Your task to perform on an android device: What's the news in Peru? Image 0: 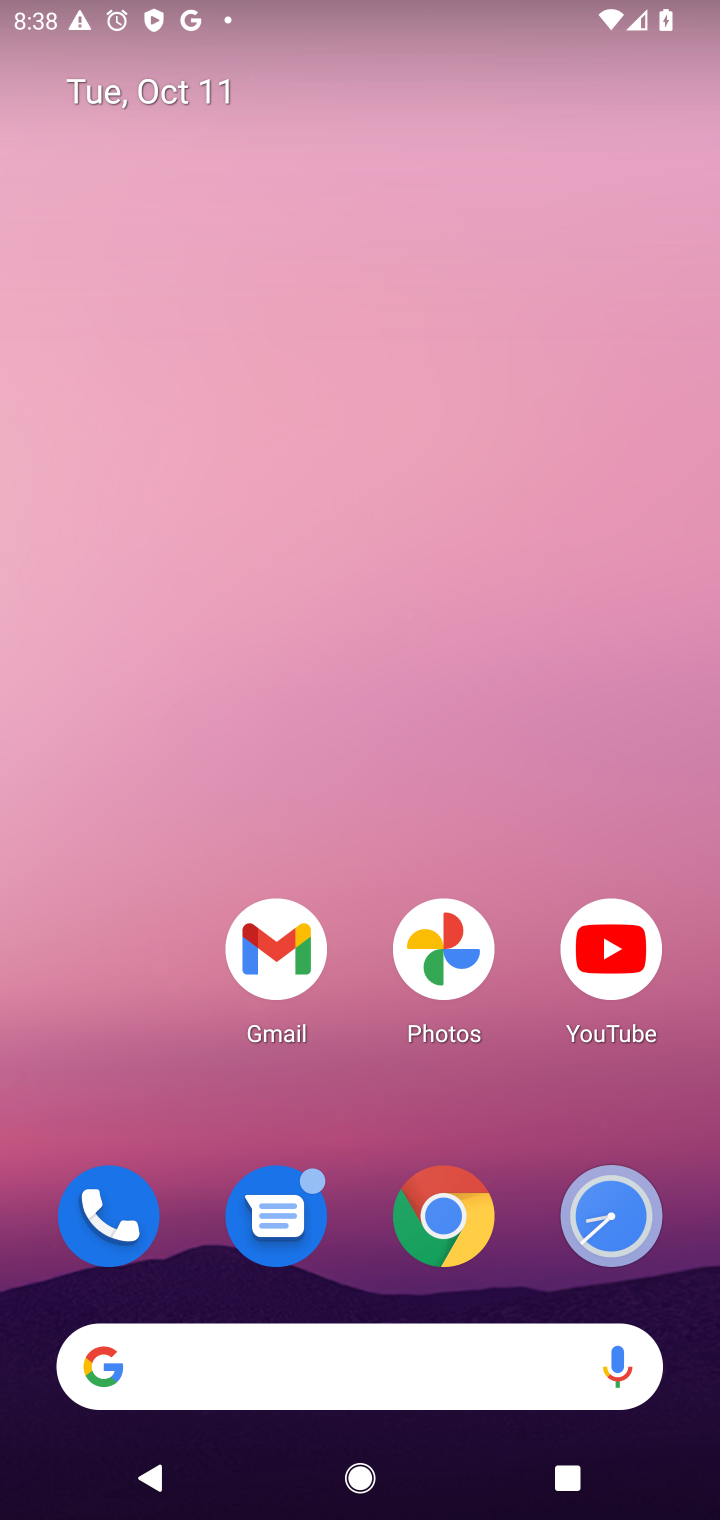
Step 0: click (399, 1256)
Your task to perform on an android device: What's the news in Peru? Image 1: 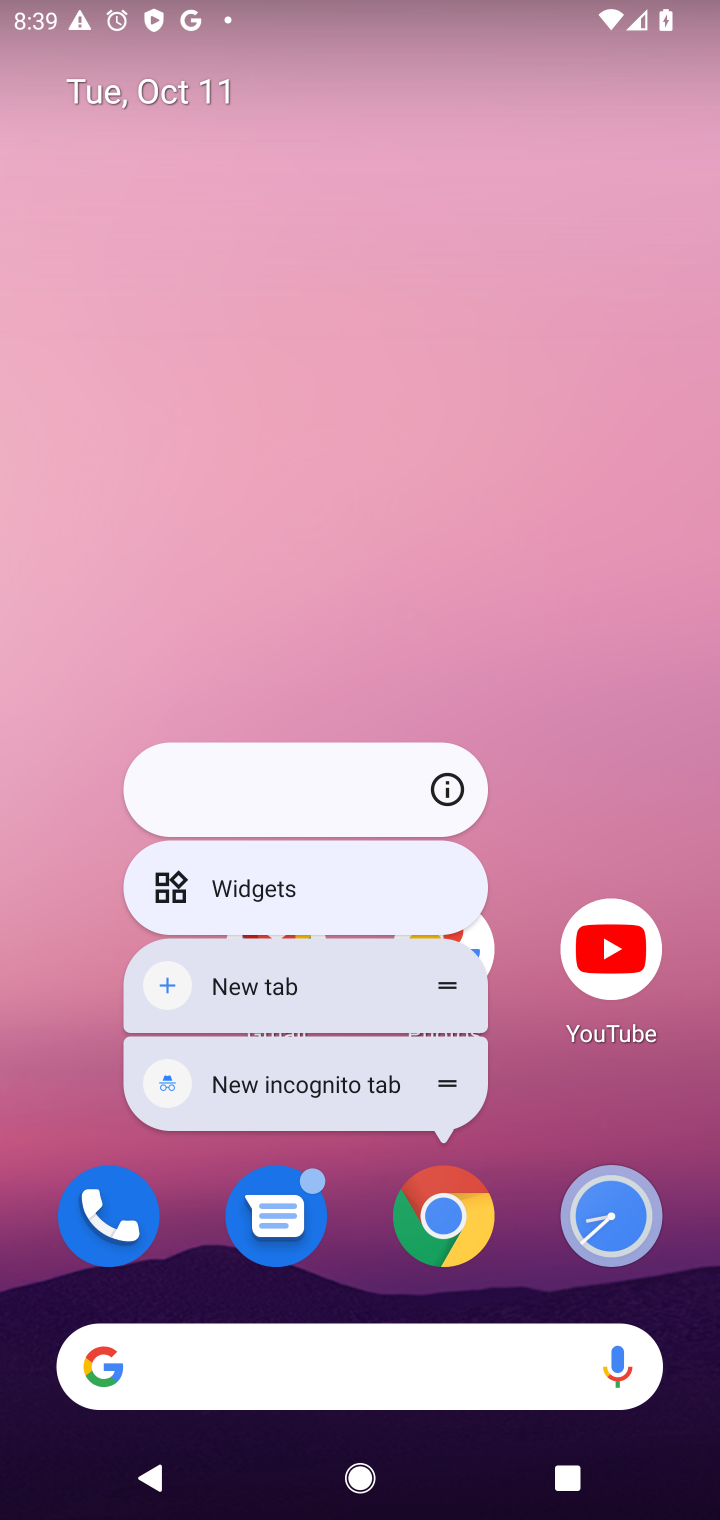
Step 1: click (394, 1184)
Your task to perform on an android device: What's the news in Peru? Image 2: 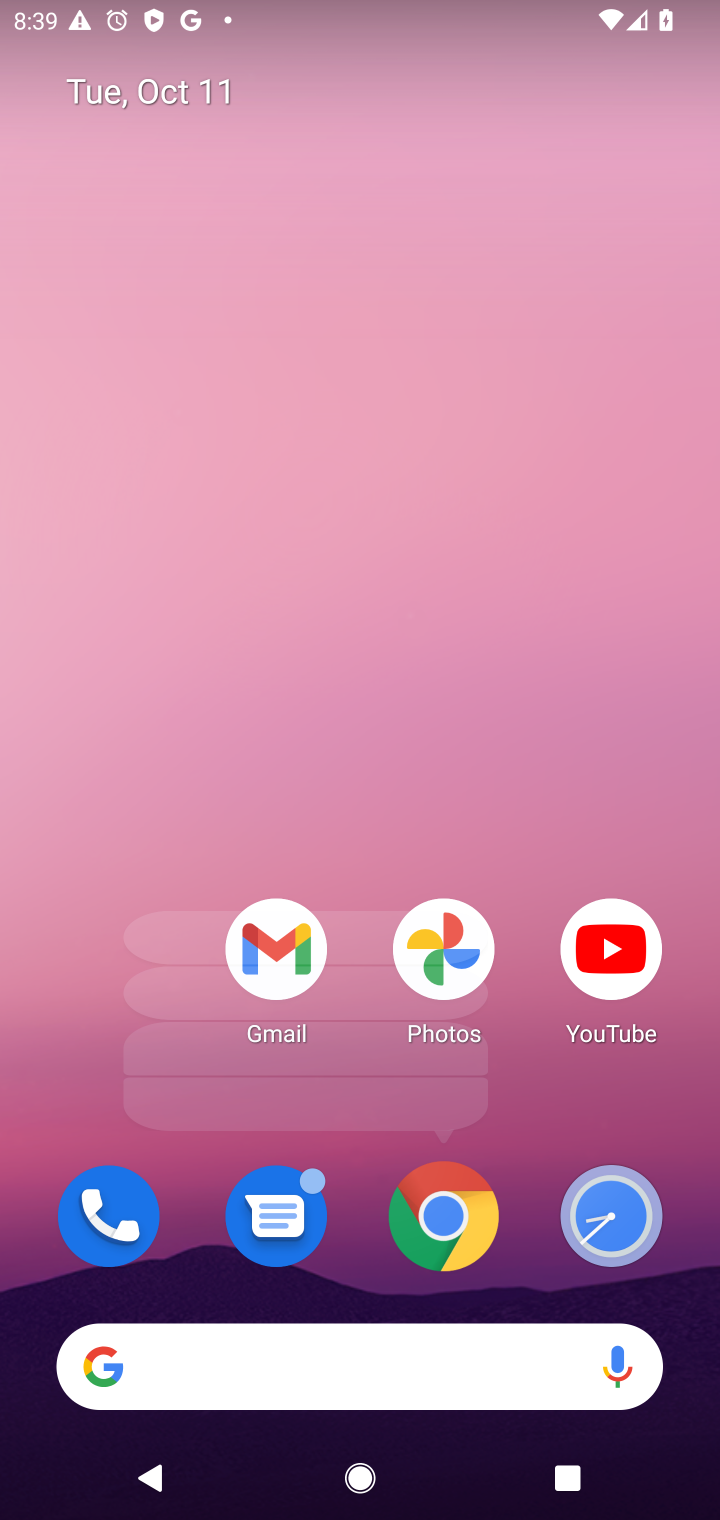
Step 2: click (394, 1184)
Your task to perform on an android device: What's the news in Peru? Image 3: 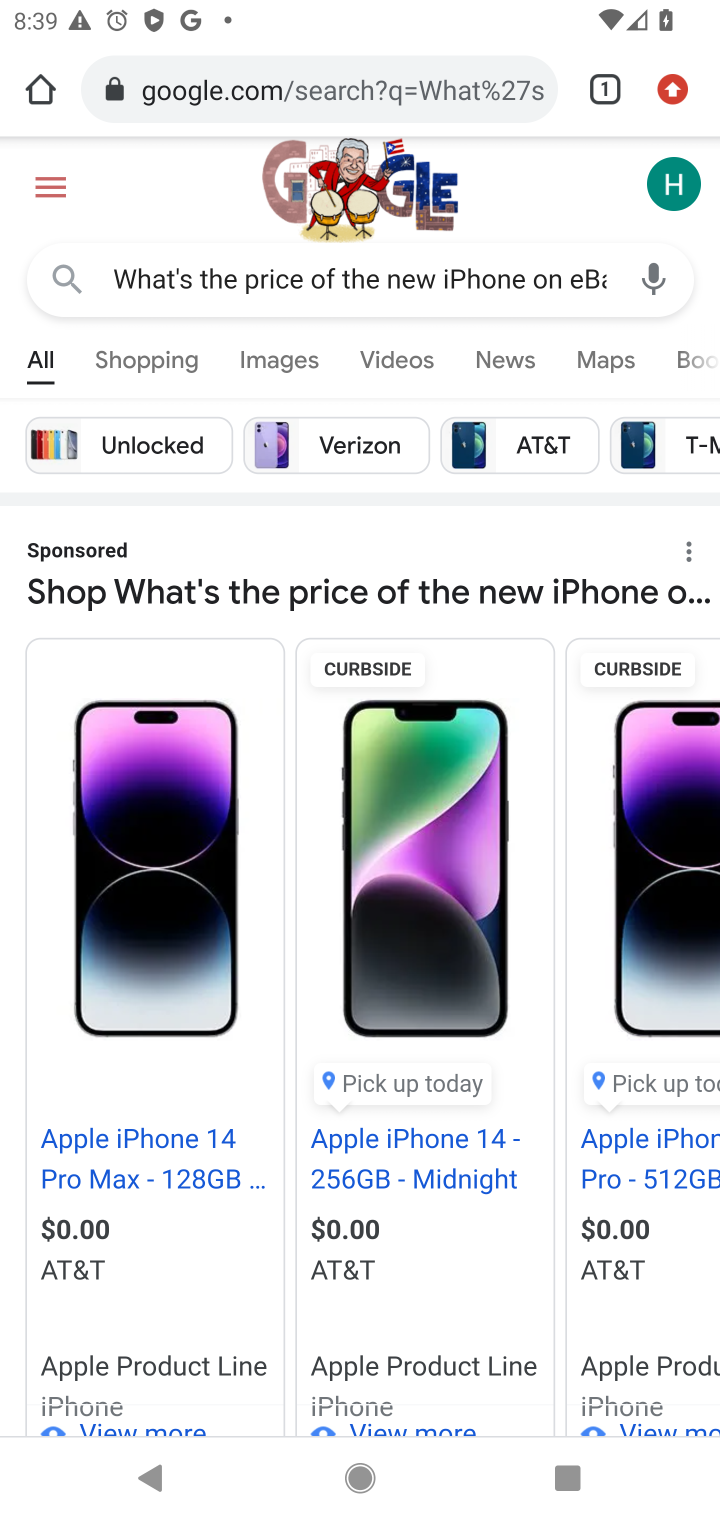
Step 3: click (376, 274)
Your task to perform on an android device: What's the news in Peru? Image 4: 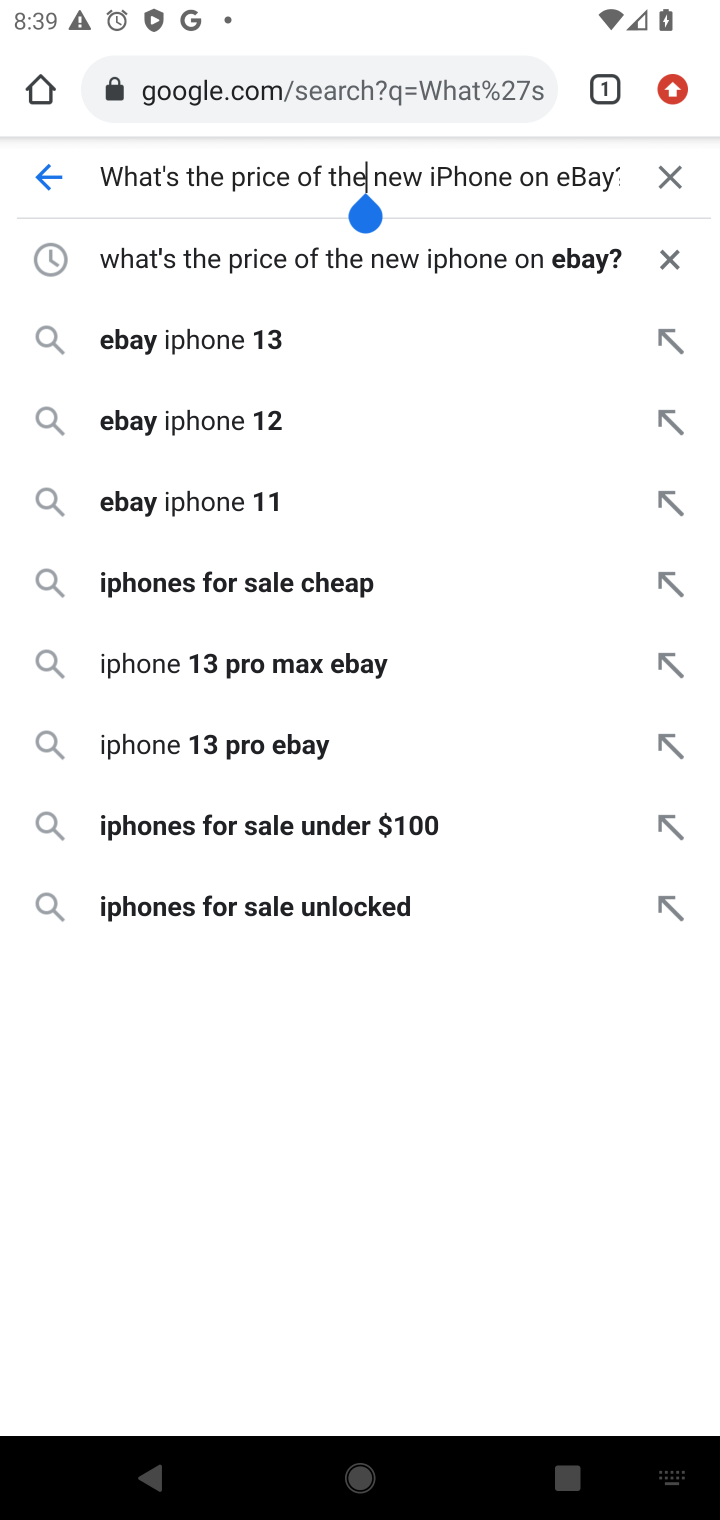
Step 4: click (664, 166)
Your task to perform on an android device: What's the news in Peru? Image 5: 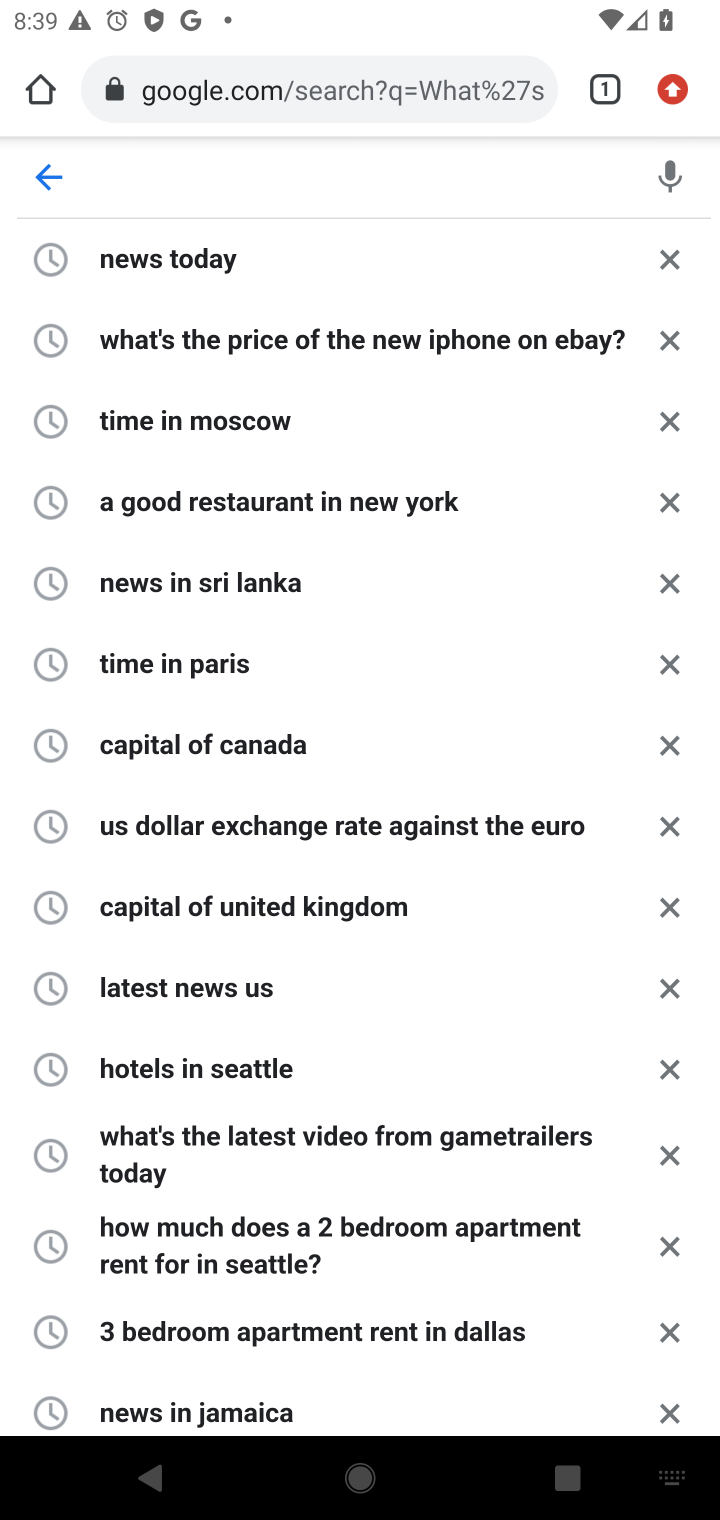
Step 5: type "What's the news in Peru?"
Your task to perform on an android device: What's the news in Peru? Image 6: 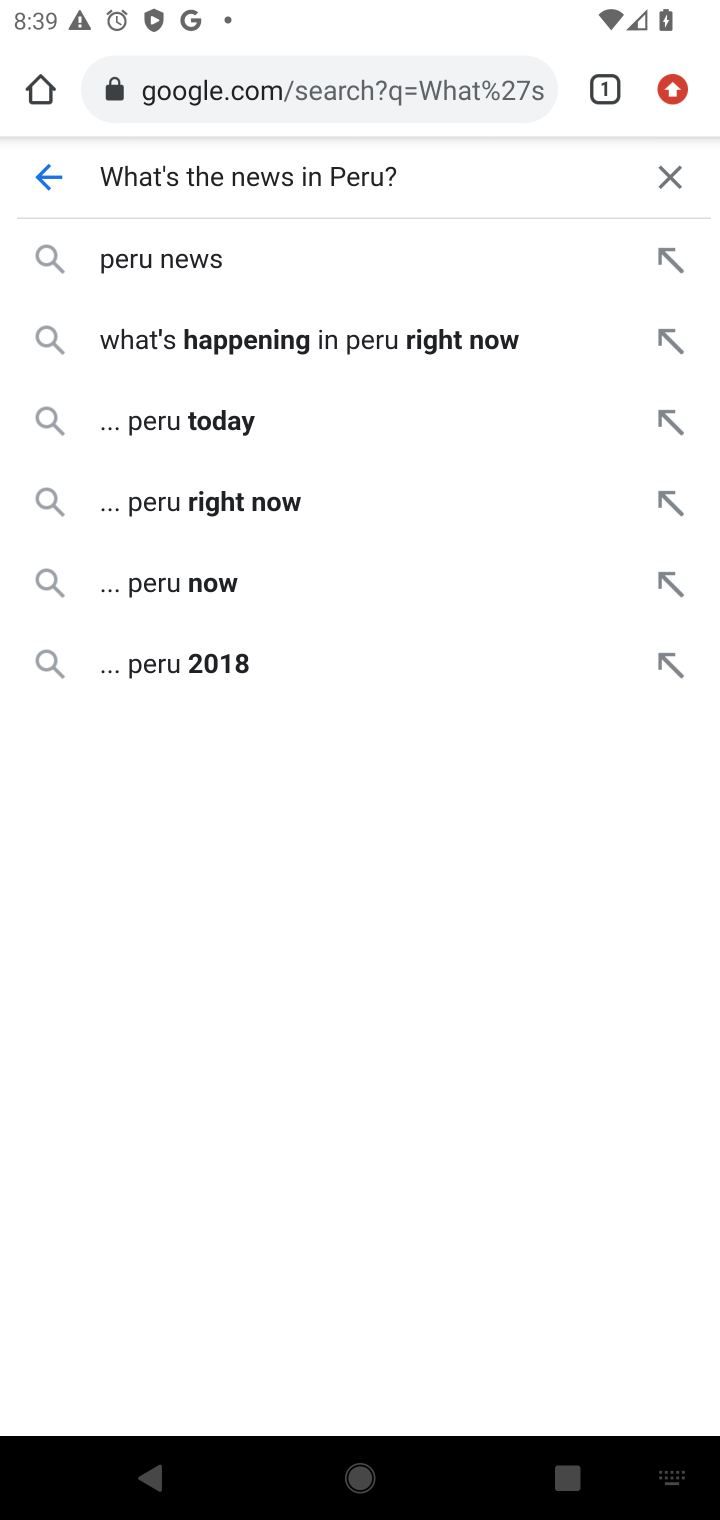
Step 6: press enter
Your task to perform on an android device: What's the news in Peru? Image 7: 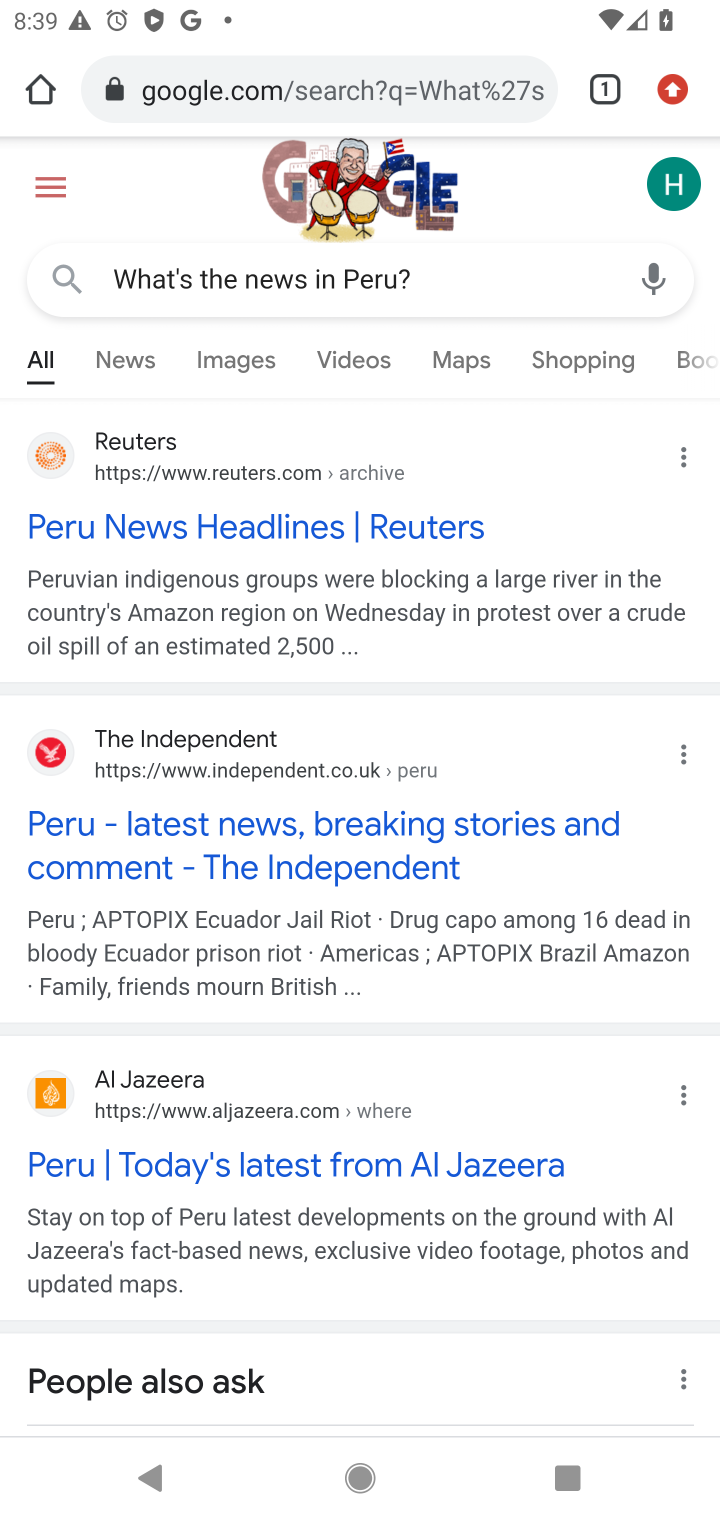
Step 7: click (128, 358)
Your task to perform on an android device: What's the news in Peru? Image 8: 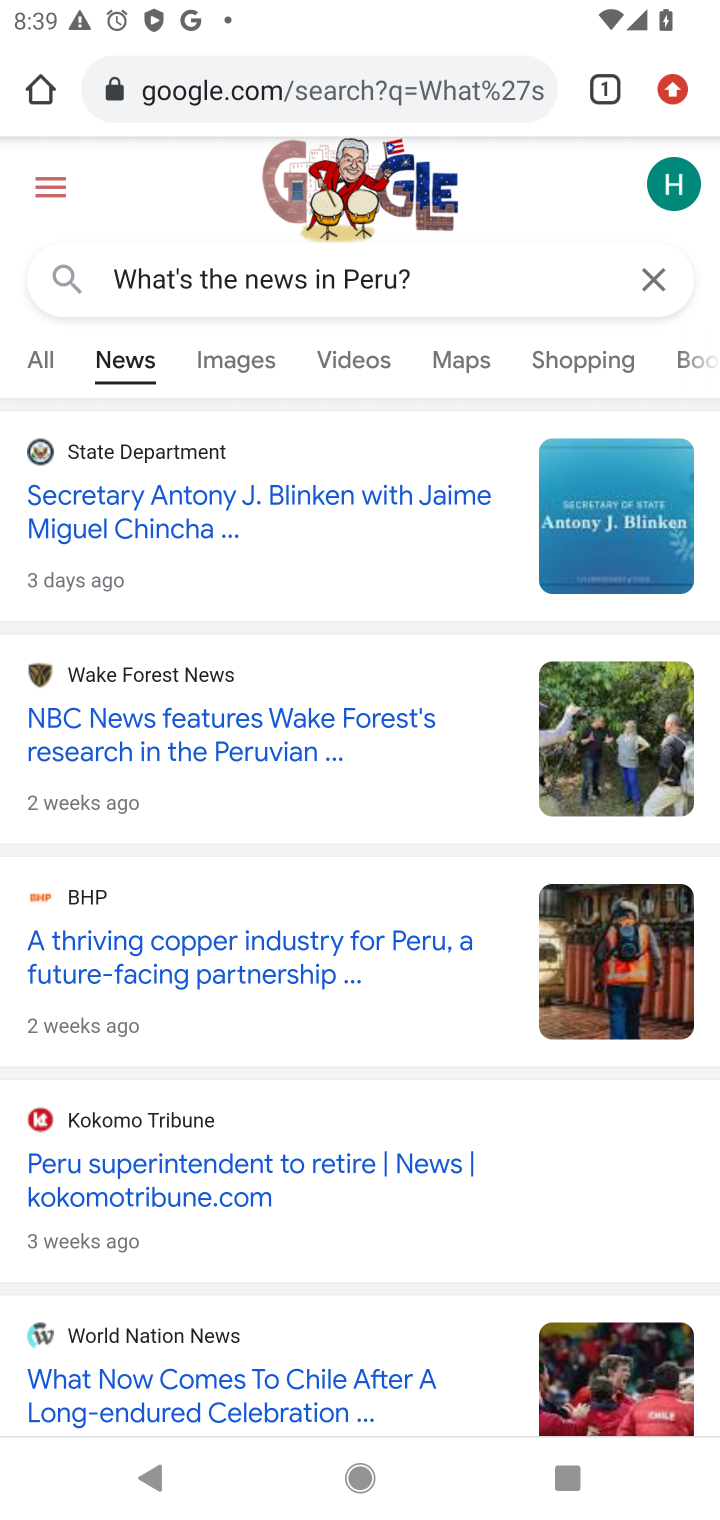
Step 8: task complete